Your task to perform on an android device: set default search engine in the chrome app Image 0: 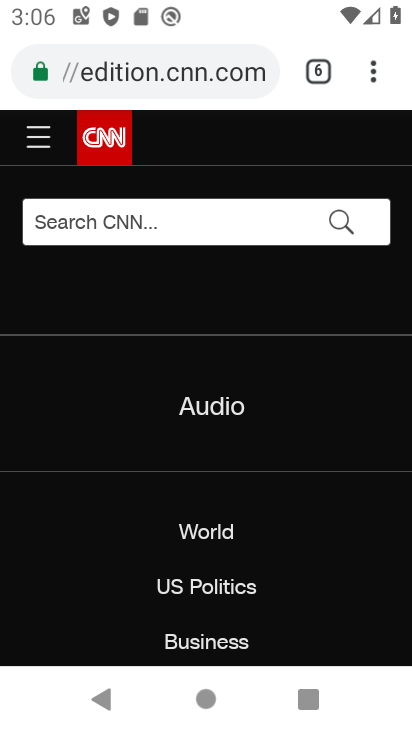
Step 0: press home button
Your task to perform on an android device: set default search engine in the chrome app Image 1: 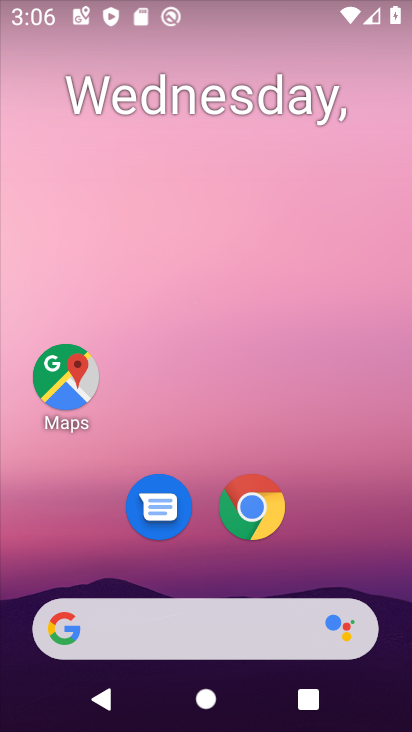
Step 1: click (250, 517)
Your task to perform on an android device: set default search engine in the chrome app Image 2: 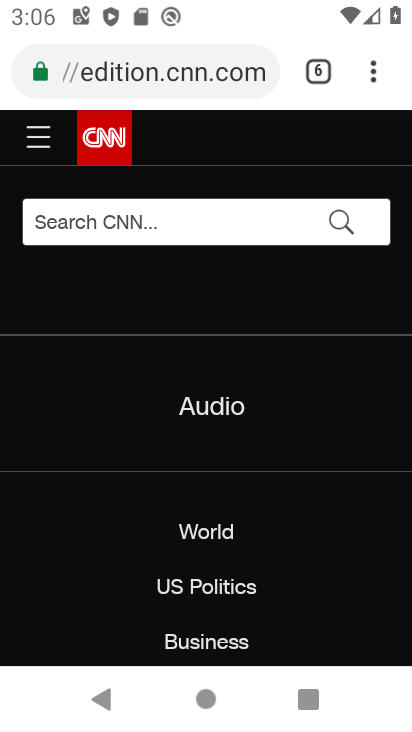
Step 2: click (357, 64)
Your task to perform on an android device: set default search engine in the chrome app Image 3: 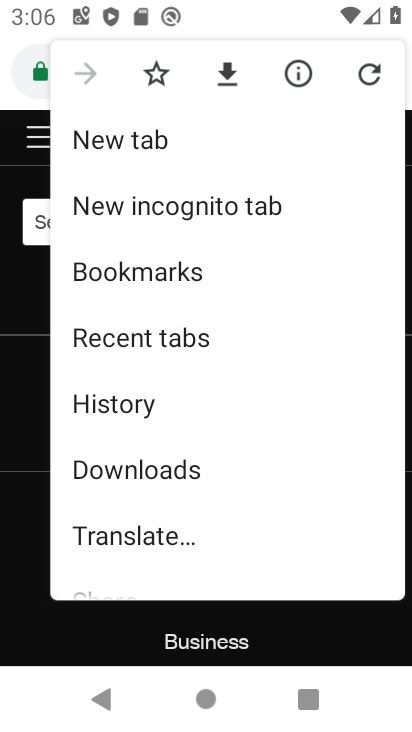
Step 3: drag from (208, 552) to (188, 174)
Your task to perform on an android device: set default search engine in the chrome app Image 4: 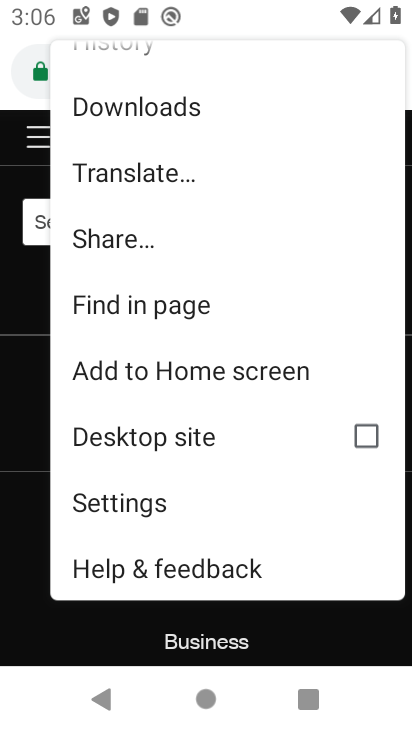
Step 4: click (167, 508)
Your task to perform on an android device: set default search engine in the chrome app Image 5: 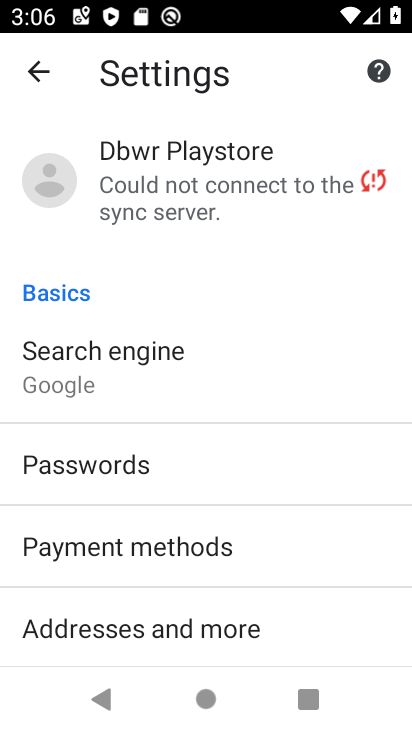
Step 5: click (102, 374)
Your task to perform on an android device: set default search engine in the chrome app Image 6: 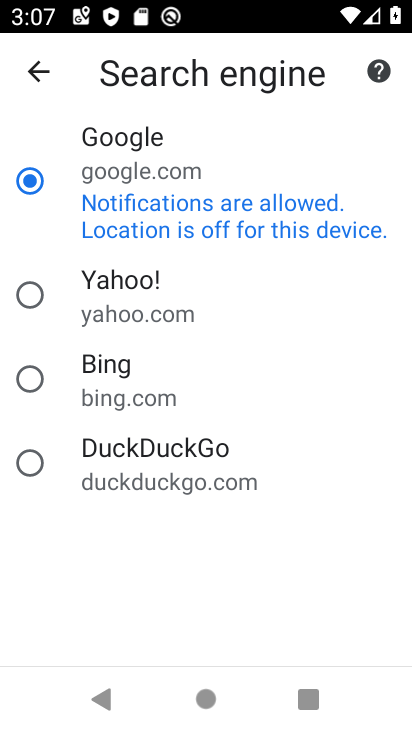
Step 6: click (25, 292)
Your task to perform on an android device: set default search engine in the chrome app Image 7: 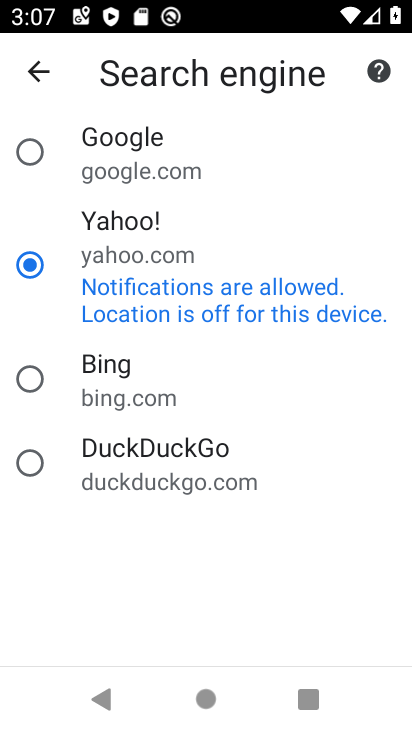
Step 7: task complete